Your task to perform on an android device: What's the weather going to be tomorrow? Image 0: 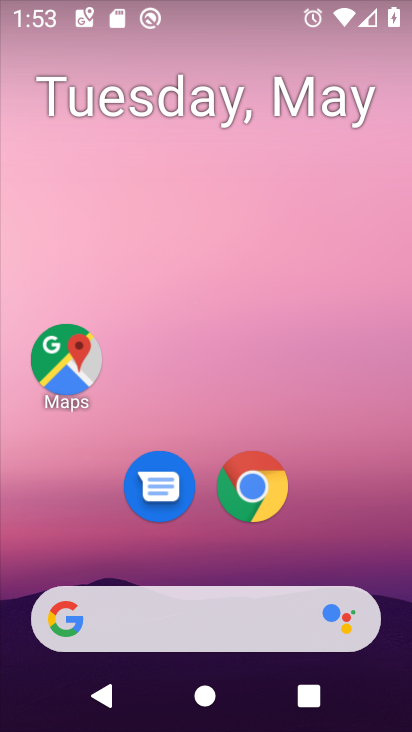
Step 0: click (176, 622)
Your task to perform on an android device: What's the weather going to be tomorrow? Image 1: 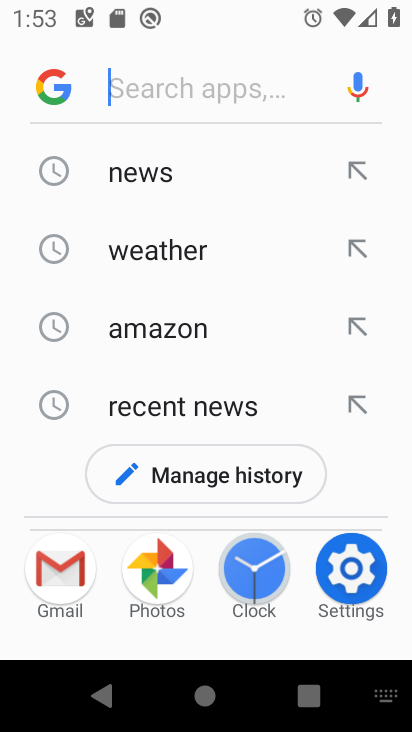
Step 1: click (135, 267)
Your task to perform on an android device: What's the weather going to be tomorrow? Image 2: 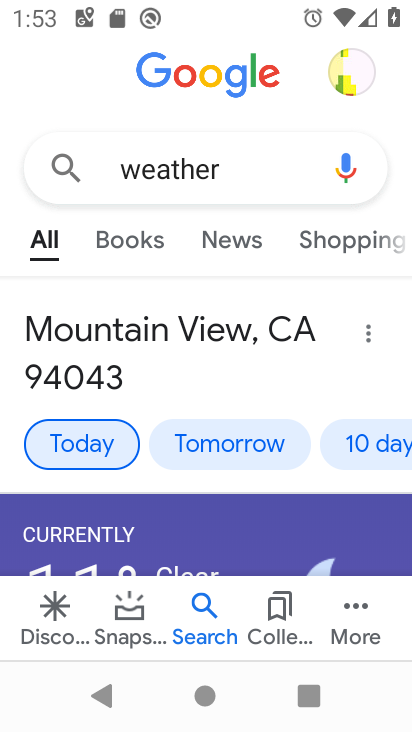
Step 2: click (200, 444)
Your task to perform on an android device: What's the weather going to be tomorrow? Image 3: 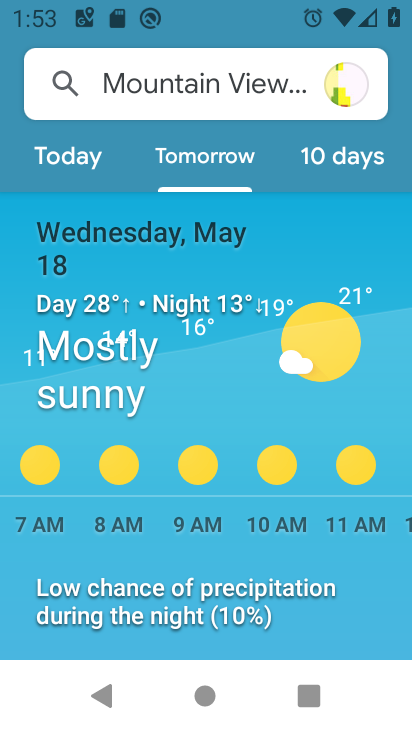
Step 3: task complete